Your task to perform on an android device: Open maps Image 0: 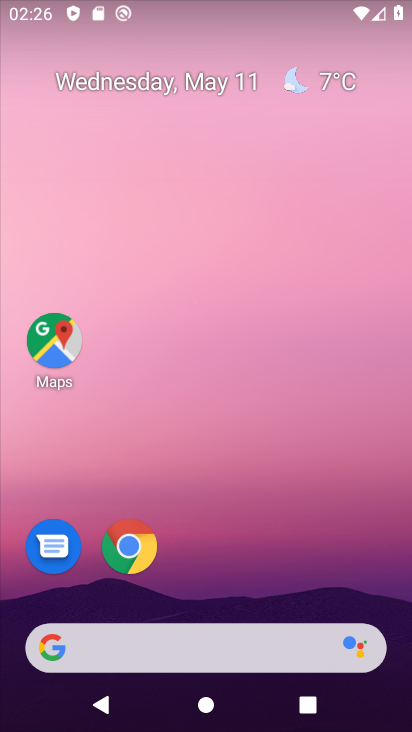
Step 0: click (74, 354)
Your task to perform on an android device: Open maps Image 1: 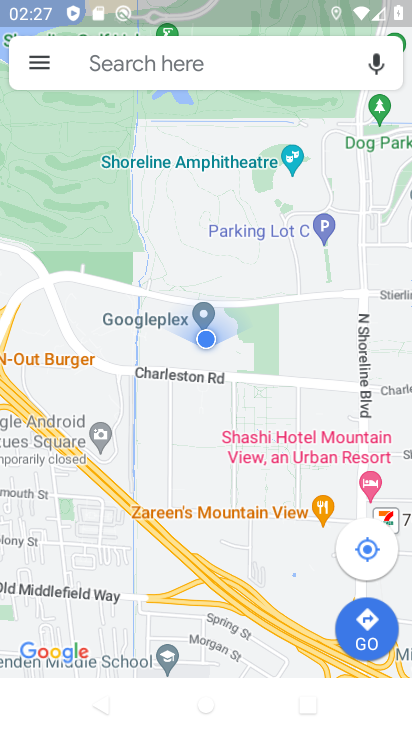
Step 1: task complete